Your task to perform on an android device: Open Youtube and go to "Your channel" Image 0: 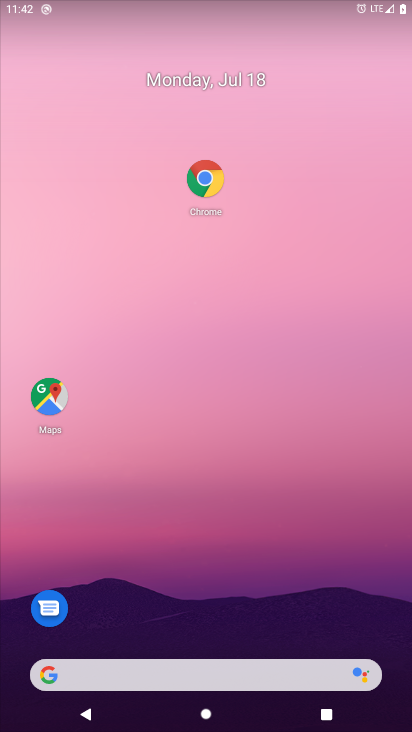
Step 0: drag from (11, 700) to (254, 137)
Your task to perform on an android device: Open Youtube and go to "Your channel" Image 1: 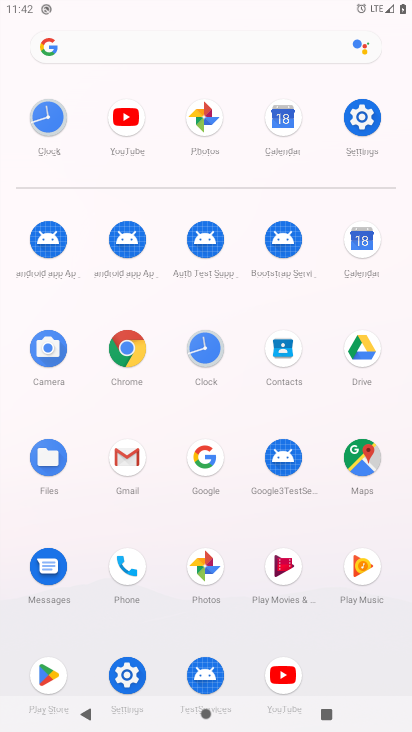
Step 1: click (288, 671)
Your task to perform on an android device: Open Youtube and go to "Your channel" Image 2: 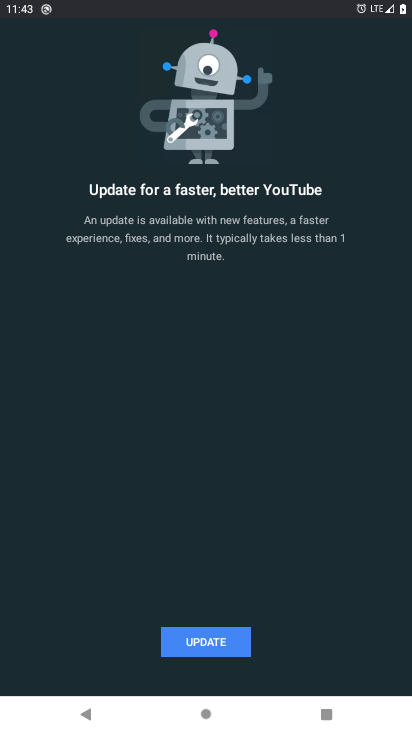
Step 2: task complete